Your task to perform on an android device: Open Google Chrome and click the shortcut for Amazon.com Image 0: 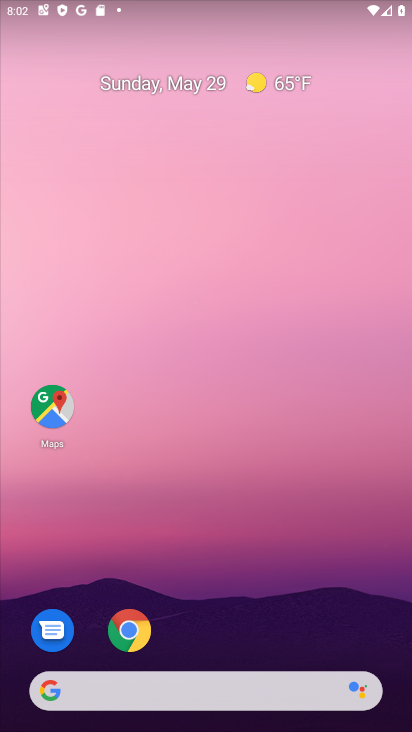
Step 0: click (127, 626)
Your task to perform on an android device: Open Google Chrome and click the shortcut for Amazon.com Image 1: 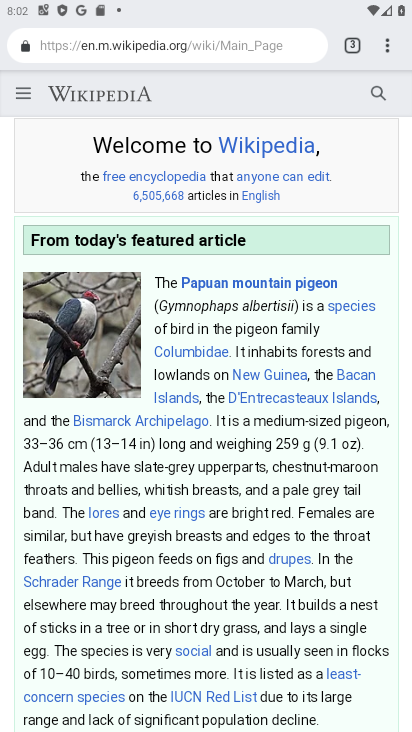
Step 1: click (387, 53)
Your task to perform on an android device: Open Google Chrome and click the shortcut for Amazon.com Image 2: 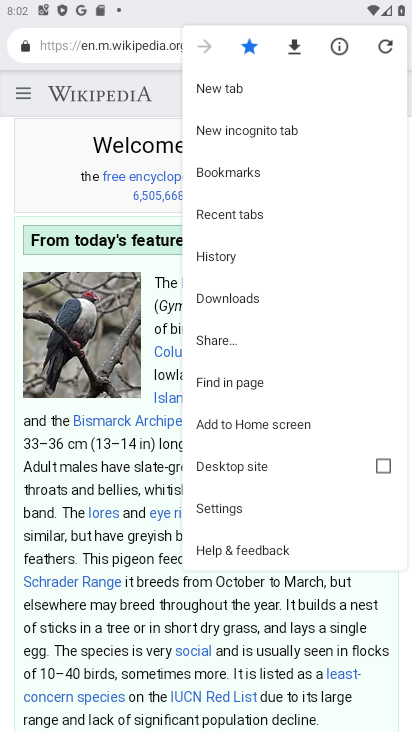
Step 2: click (230, 87)
Your task to perform on an android device: Open Google Chrome and click the shortcut for Amazon.com Image 3: 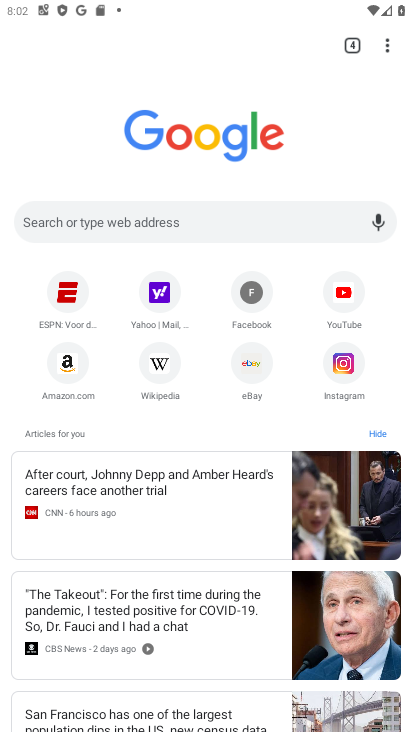
Step 3: click (60, 363)
Your task to perform on an android device: Open Google Chrome and click the shortcut for Amazon.com Image 4: 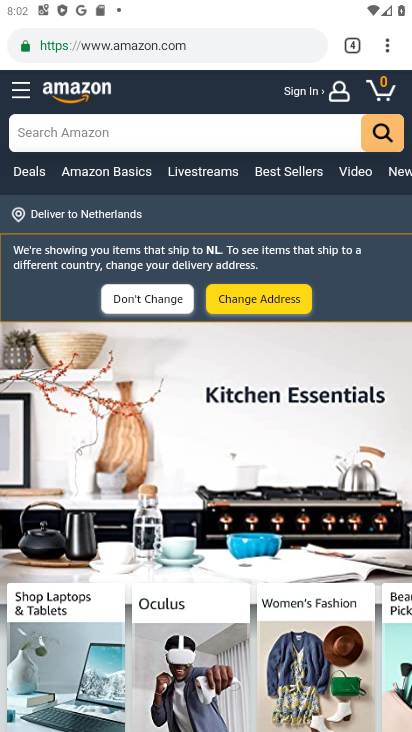
Step 4: task complete